Your task to perform on an android device: change the clock display to analog Image 0: 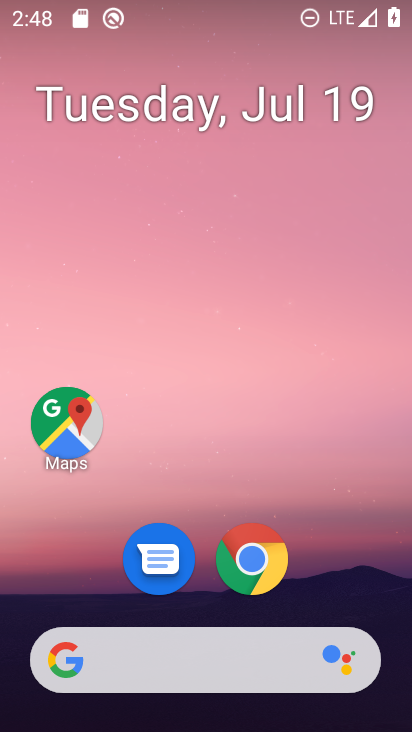
Step 0: drag from (289, 627) to (382, 162)
Your task to perform on an android device: change the clock display to analog Image 1: 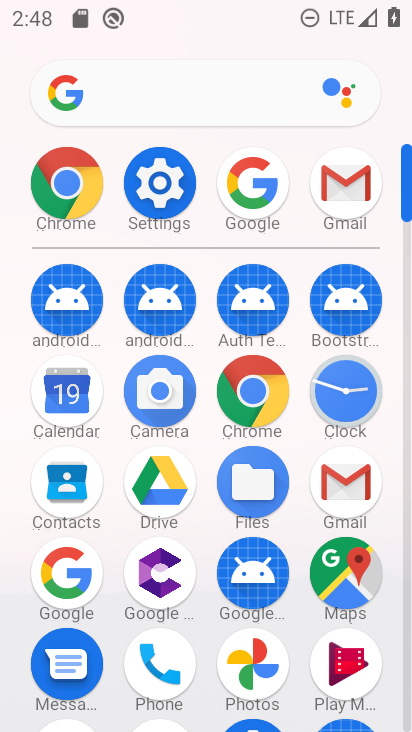
Step 1: click (367, 402)
Your task to perform on an android device: change the clock display to analog Image 2: 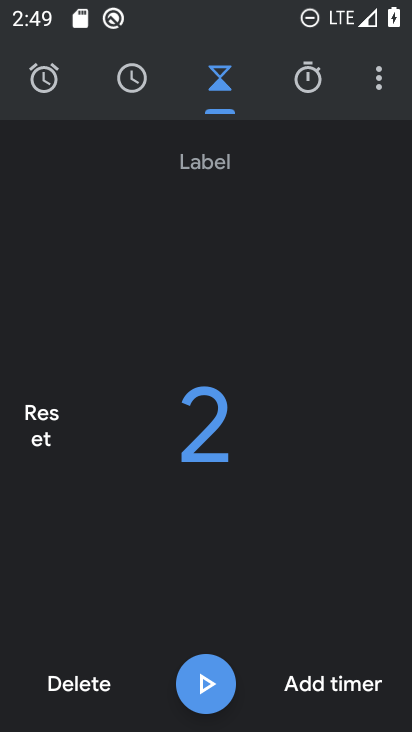
Step 2: click (388, 88)
Your task to perform on an android device: change the clock display to analog Image 3: 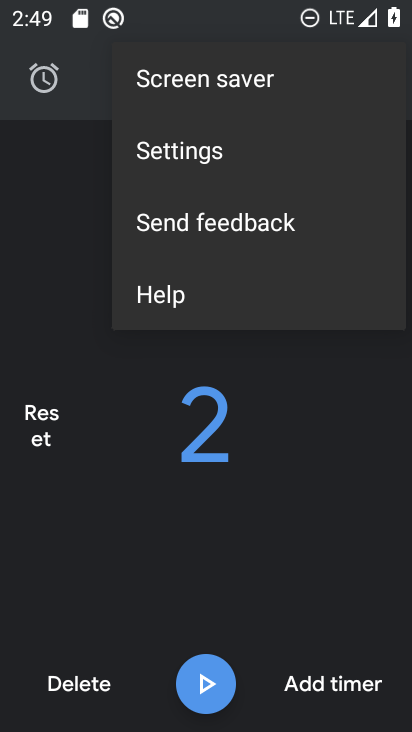
Step 3: click (219, 167)
Your task to perform on an android device: change the clock display to analog Image 4: 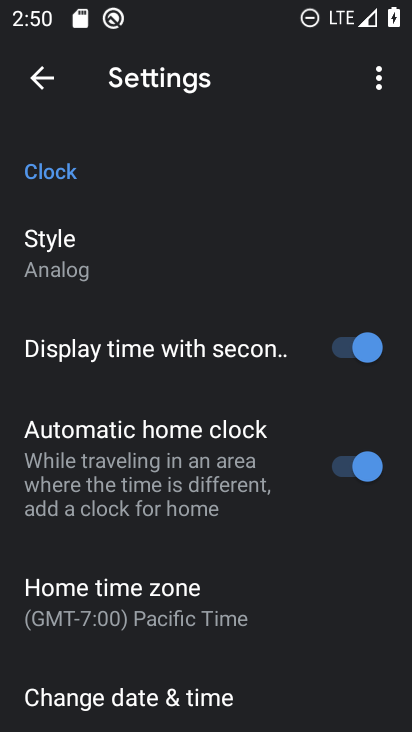
Step 4: click (64, 266)
Your task to perform on an android device: change the clock display to analog Image 5: 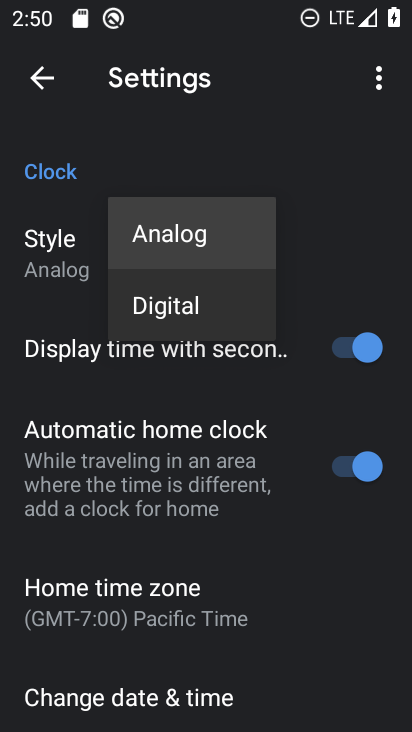
Step 5: task complete